Your task to perform on an android device: see tabs open on other devices in the chrome app Image 0: 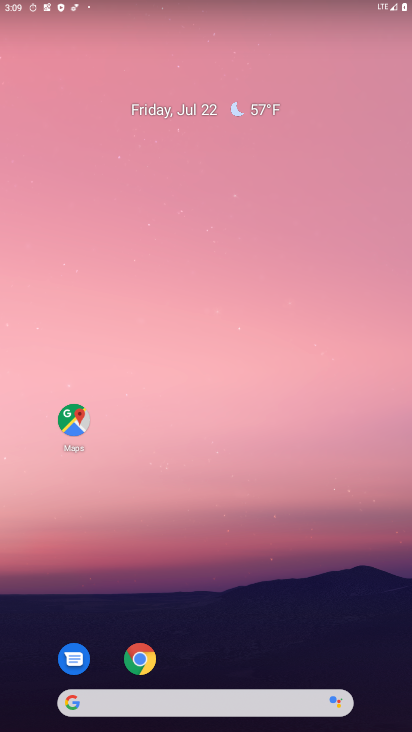
Step 0: click (145, 669)
Your task to perform on an android device: see tabs open on other devices in the chrome app Image 1: 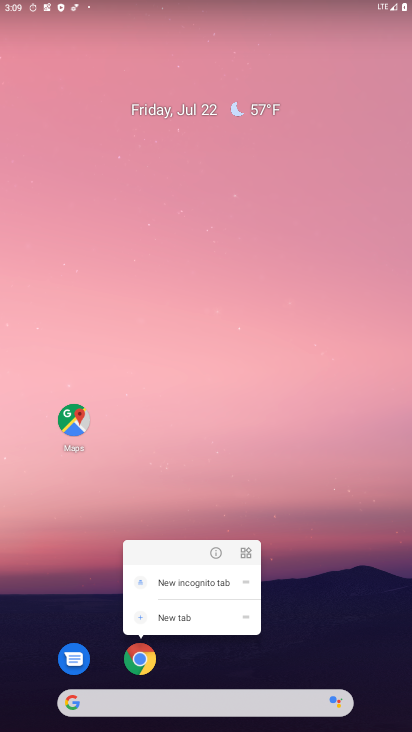
Step 1: click (147, 644)
Your task to perform on an android device: see tabs open on other devices in the chrome app Image 2: 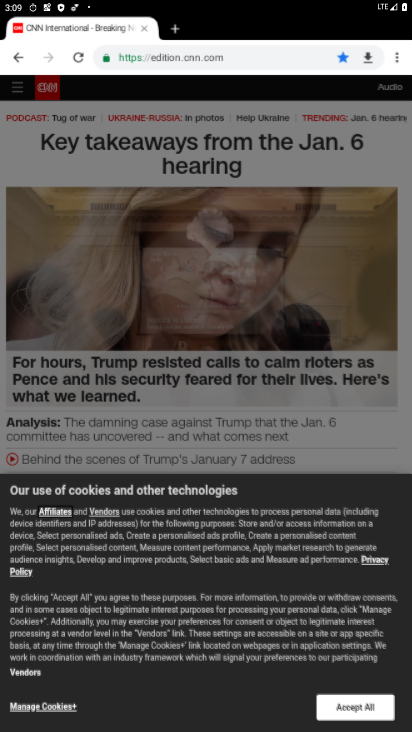
Step 2: click (400, 42)
Your task to perform on an android device: see tabs open on other devices in the chrome app Image 3: 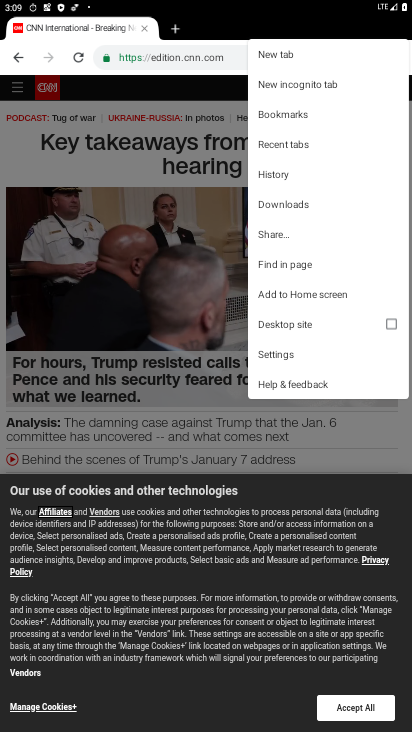
Step 3: click (273, 134)
Your task to perform on an android device: see tabs open on other devices in the chrome app Image 4: 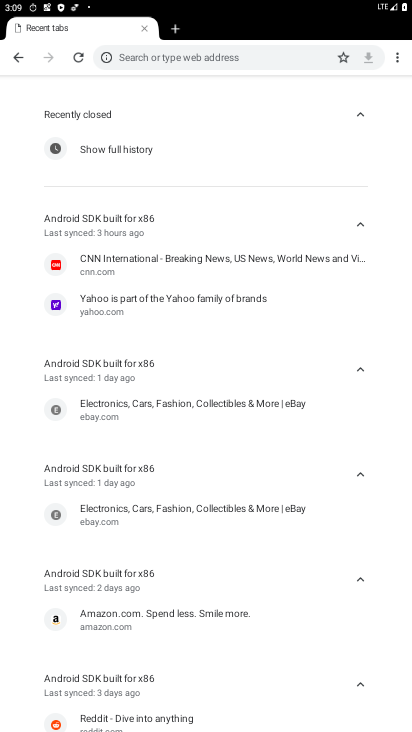
Step 4: task complete